Your task to perform on an android device: Open calendar and show me the second week of next month Image 0: 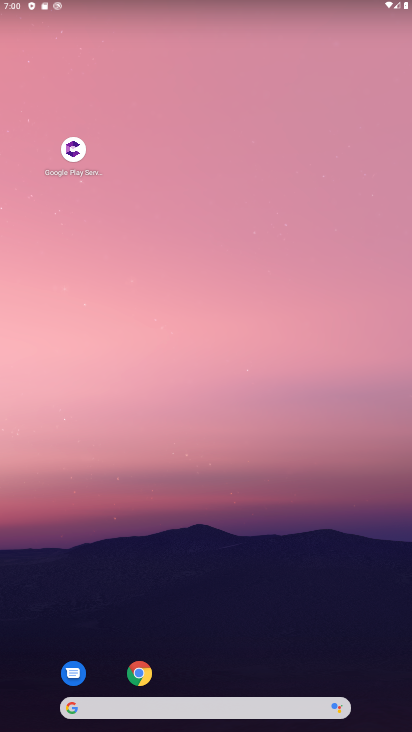
Step 0: drag from (235, 689) to (303, 95)
Your task to perform on an android device: Open calendar and show me the second week of next month Image 1: 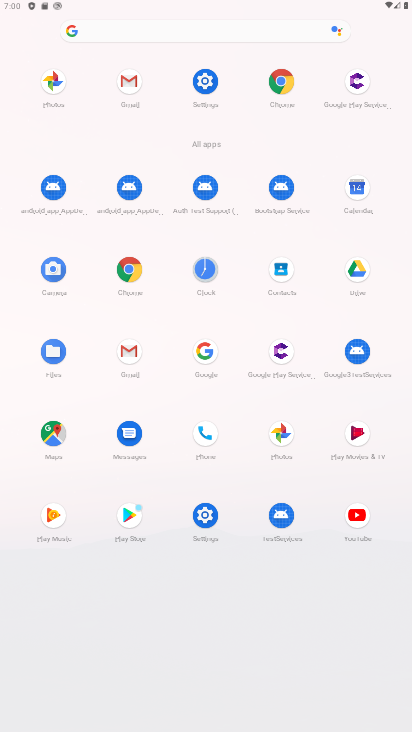
Step 1: click (343, 186)
Your task to perform on an android device: Open calendar and show me the second week of next month Image 2: 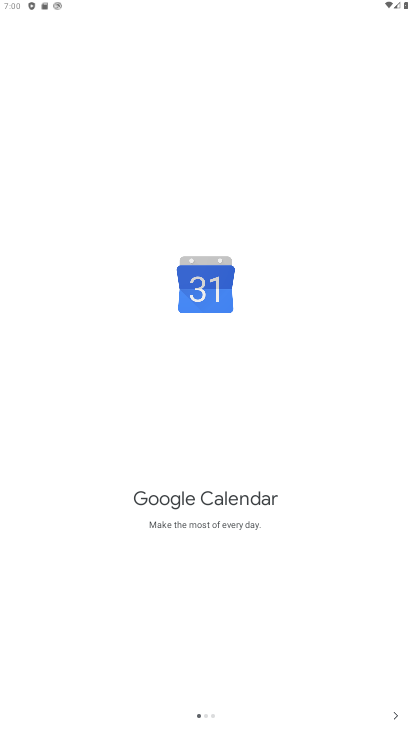
Step 2: click (395, 724)
Your task to perform on an android device: Open calendar and show me the second week of next month Image 3: 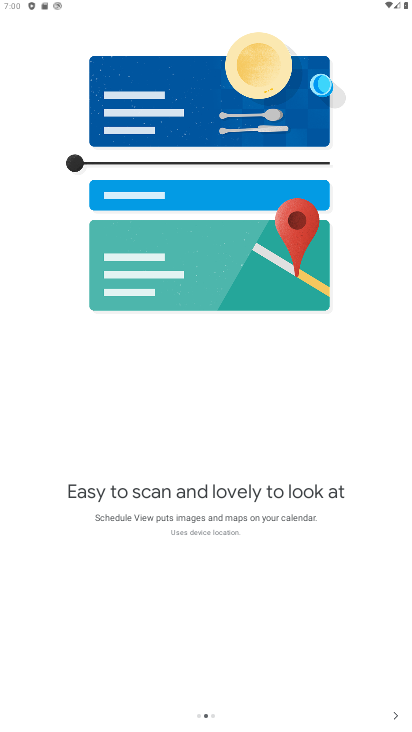
Step 3: click (394, 723)
Your task to perform on an android device: Open calendar and show me the second week of next month Image 4: 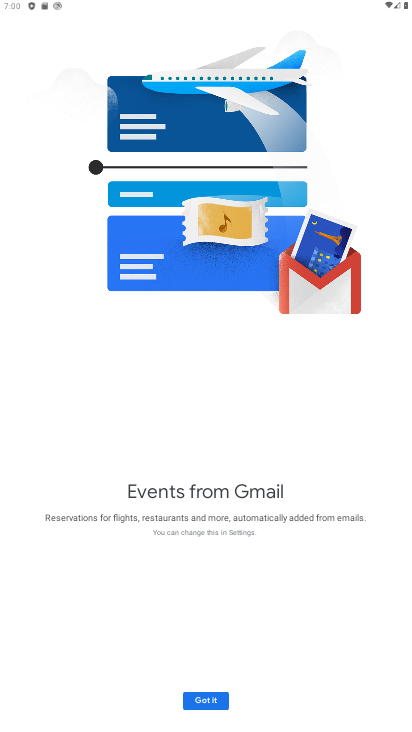
Step 4: click (224, 694)
Your task to perform on an android device: Open calendar and show me the second week of next month Image 5: 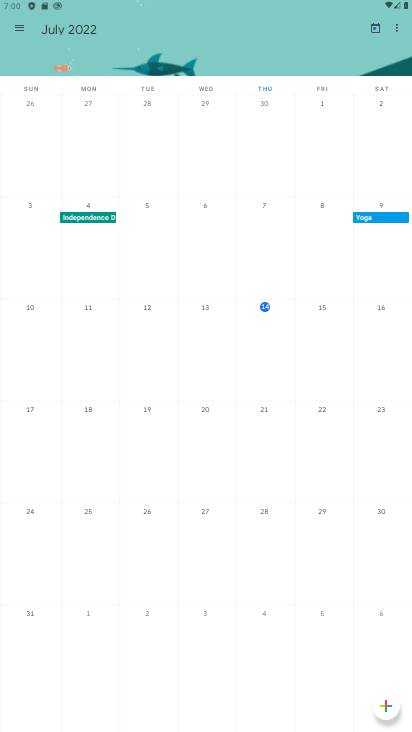
Step 5: drag from (339, 462) to (2, 438)
Your task to perform on an android device: Open calendar and show me the second week of next month Image 6: 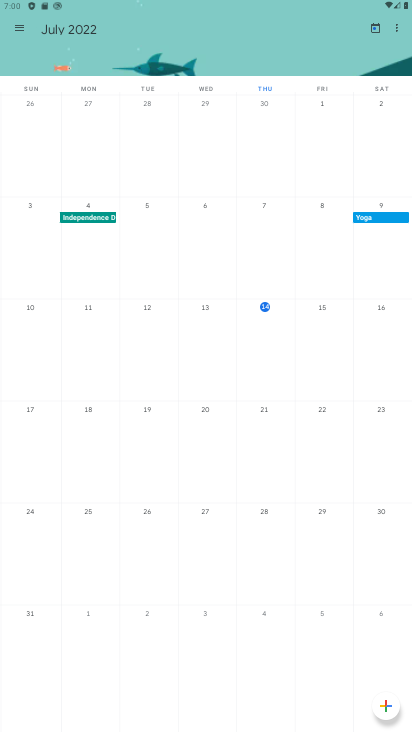
Step 6: drag from (285, 342) to (11, 410)
Your task to perform on an android device: Open calendar and show me the second week of next month Image 7: 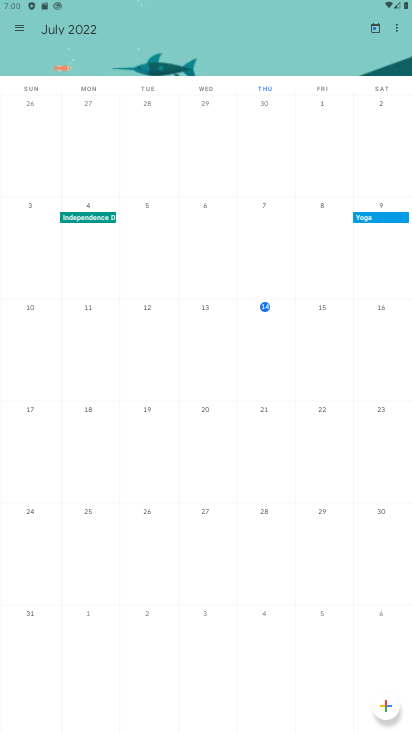
Step 7: drag from (375, 338) to (6, 426)
Your task to perform on an android device: Open calendar and show me the second week of next month Image 8: 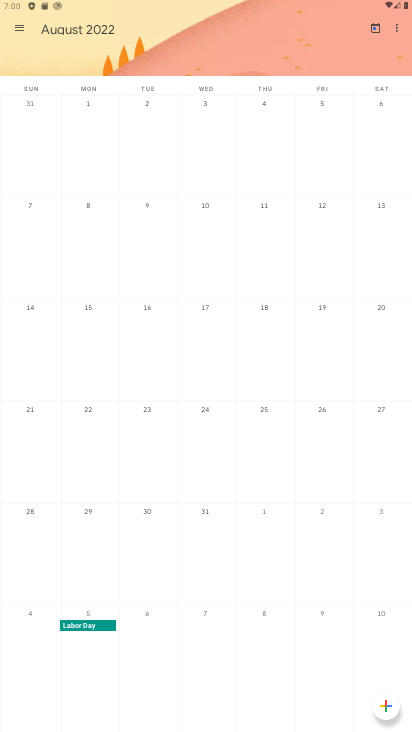
Step 8: click (87, 265)
Your task to perform on an android device: Open calendar and show me the second week of next month Image 9: 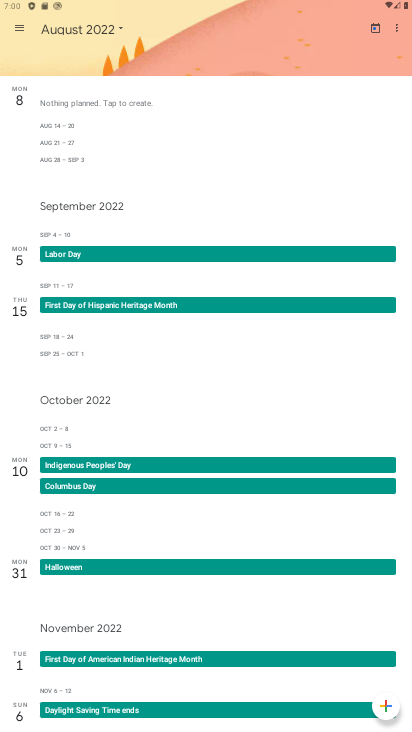
Step 9: task complete